Your task to perform on an android device: change notification settings in the gmail app Image 0: 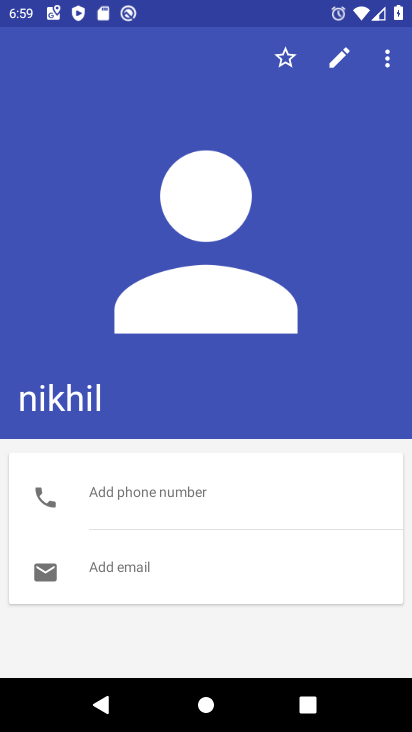
Step 0: press home button
Your task to perform on an android device: change notification settings in the gmail app Image 1: 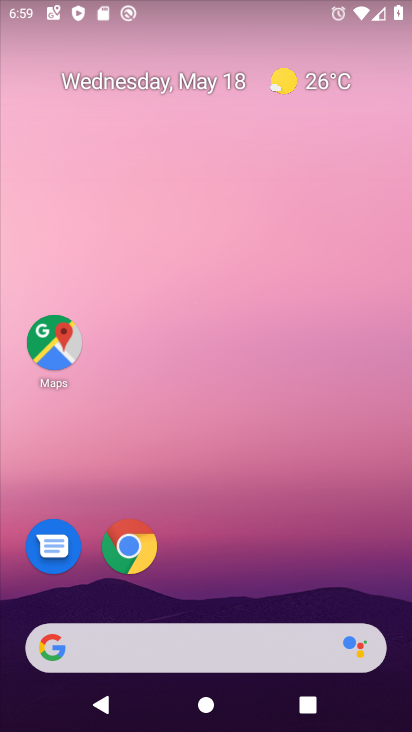
Step 1: drag from (385, 615) to (242, 31)
Your task to perform on an android device: change notification settings in the gmail app Image 2: 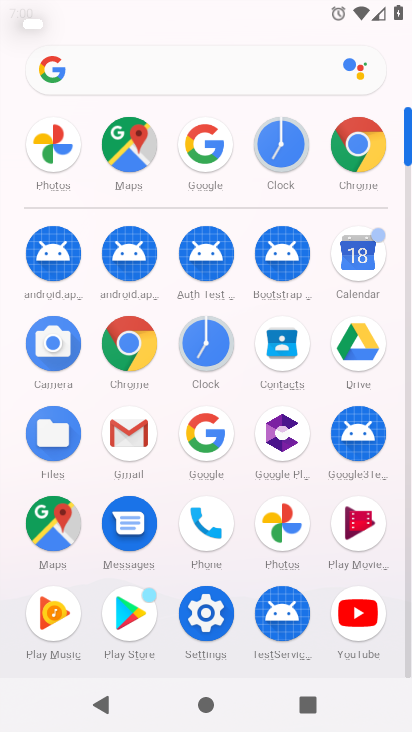
Step 2: click (113, 428)
Your task to perform on an android device: change notification settings in the gmail app Image 3: 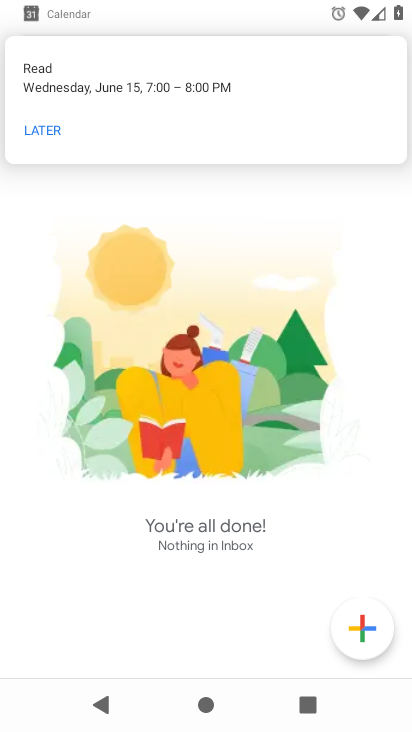
Step 3: click (21, 114)
Your task to perform on an android device: change notification settings in the gmail app Image 4: 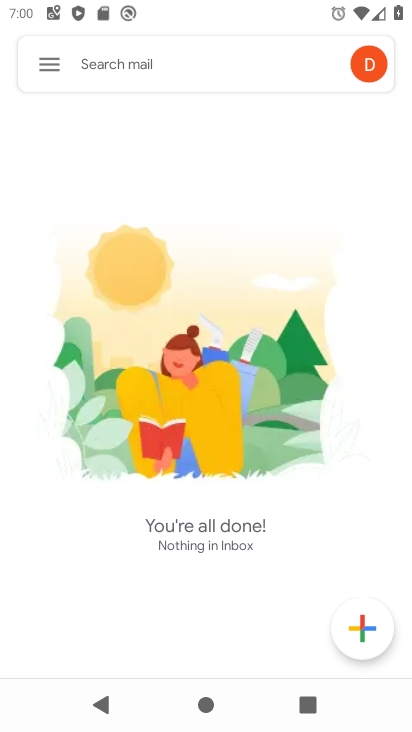
Step 4: click (52, 69)
Your task to perform on an android device: change notification settings in the gmail app Image 5: 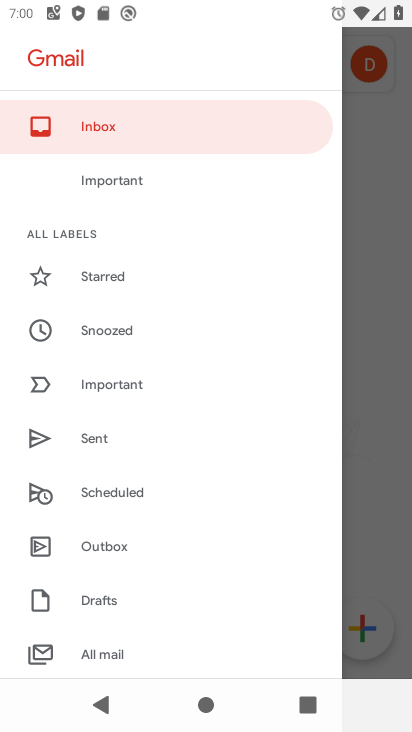
Step 5: drag from (91, 592) to (141, 144)
Your task to perform on an android device: change notification settings in the gmail app Image 6: 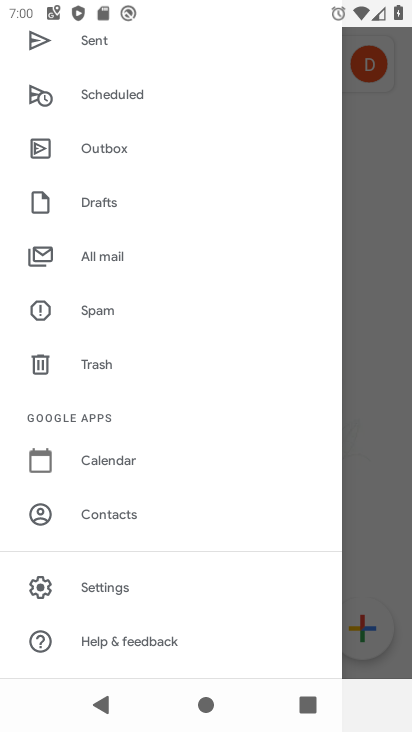
Step 6: click (130, 592)
Your task to perform on an android device: change notification settings in the gmail app Image 7: 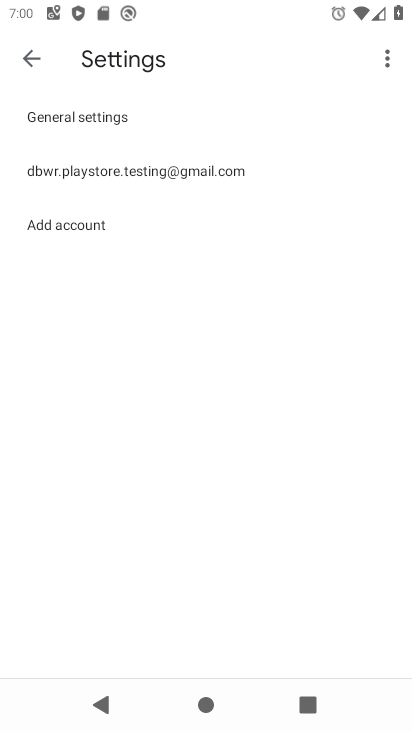
Step 7: click (129, 163)
Your task to perform on an android device: change notification settings in the gmail app Image 8: 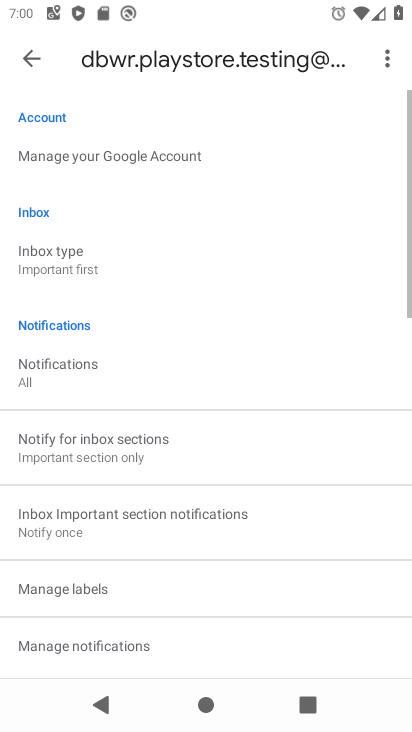
Step 8: click (60, 373)
Your task to perform on an android device: change notification settings in the gmail app Image 9: 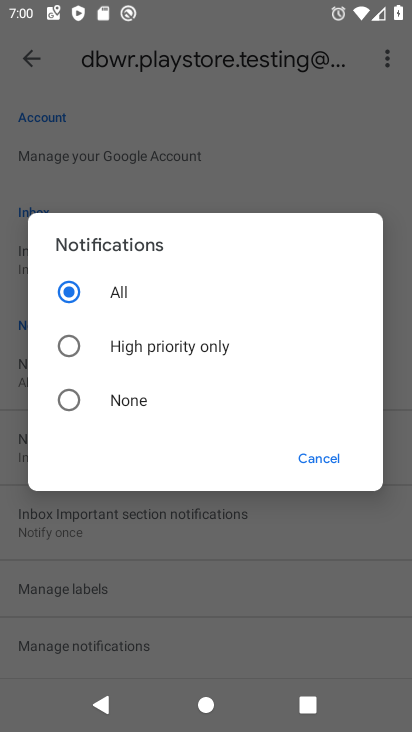
Step 9: click (79, 393)
Your task to perform on an android device: change notification settings in the gmail app Image 10: 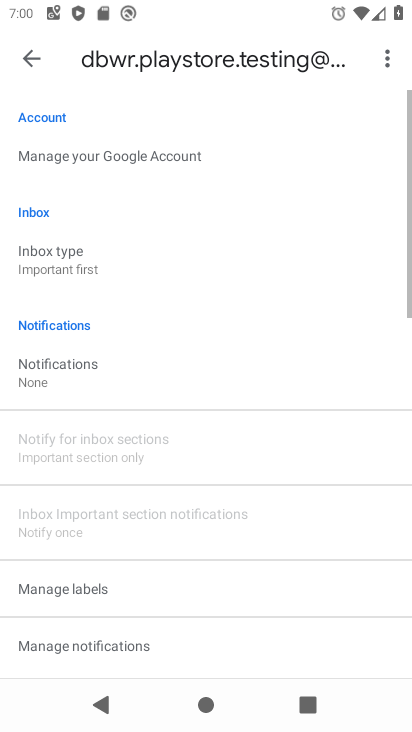
Step 10: task complete